Your task to perform on an android device: Open privacy settings Image 0: 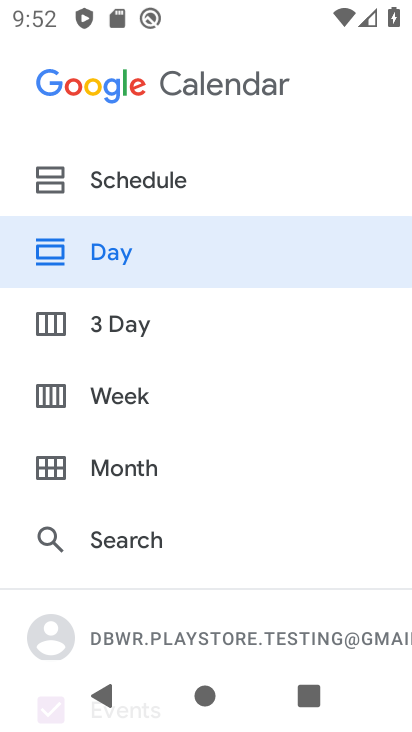
Step 0: press home button
Your task to perform on an android device: Open privacy settings Image 1: 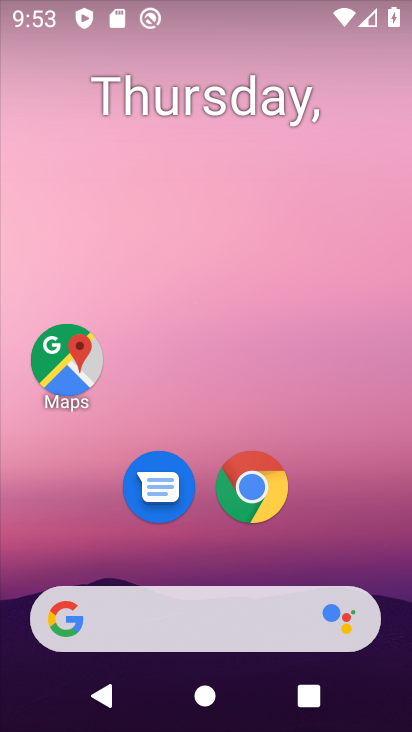
Step 1: drag from (319, 526) to (89, 210)
Your task to perform on an android device: Open privacy settings Image 2: 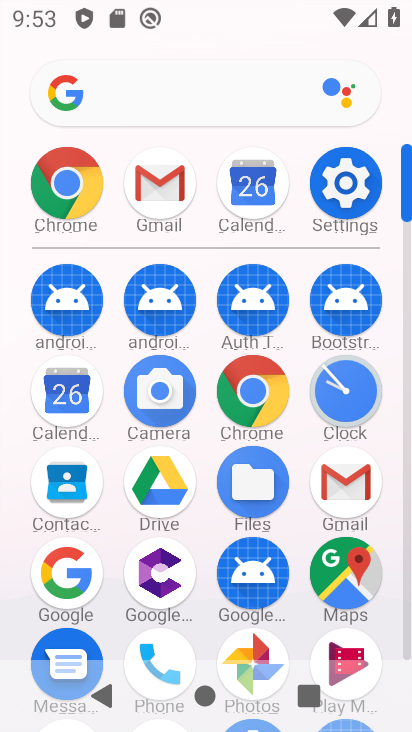
Step 2: click (351, 180)
Your task to perform on an android device: Open privacy settings Image 3: 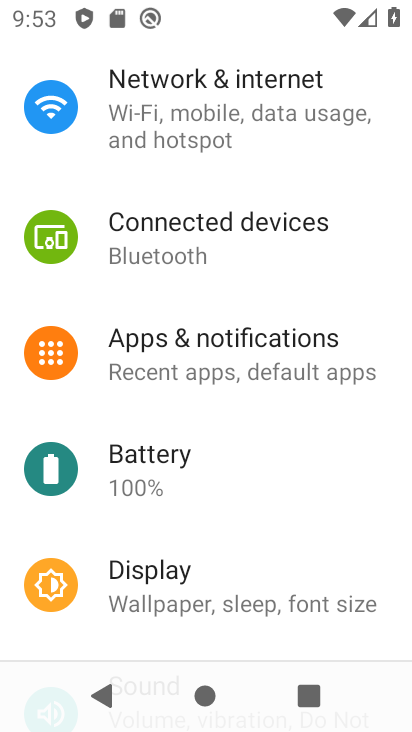
Step 3: drag from (238, 566) to (175, 240)
Your task to perform on an android device: Open privacy settings Image 4: 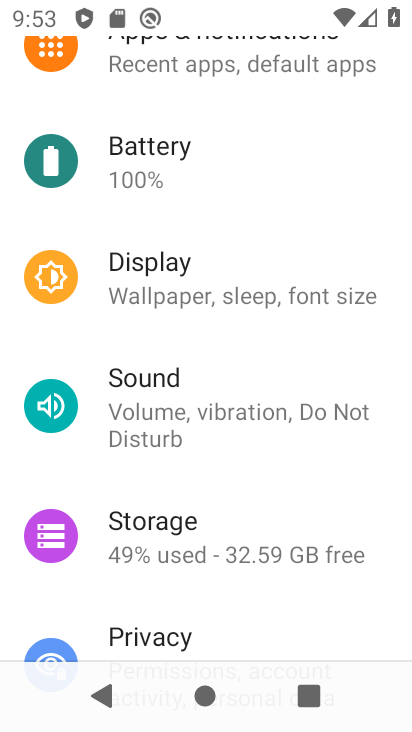
Step 4: click (142, 642)
Your task to perform on an android device: Open privacy settings Image 5: 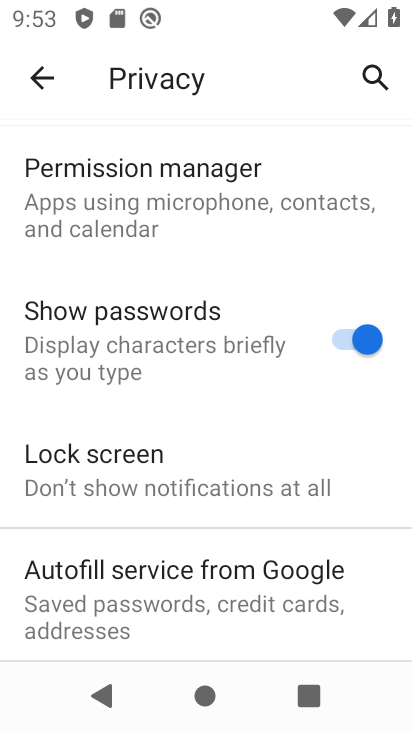
Step 5: drag from (142, 642) to (158, 309)
Your task to perform on an android device: Open privacy settings Image 6: 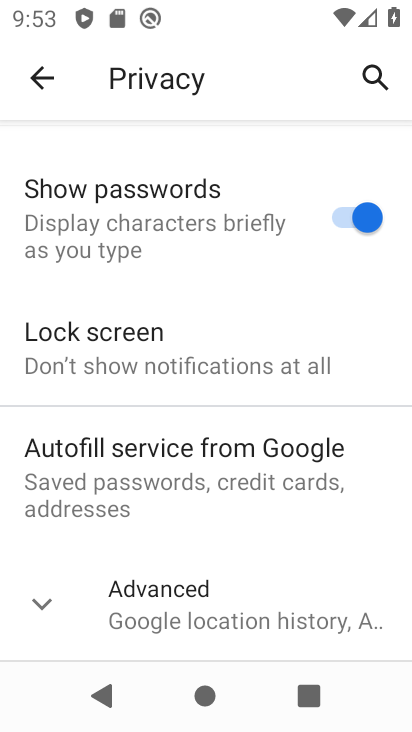
Step 6: click (138, 616)
Your task to perform on an android device: Open privacy settings Image 7: 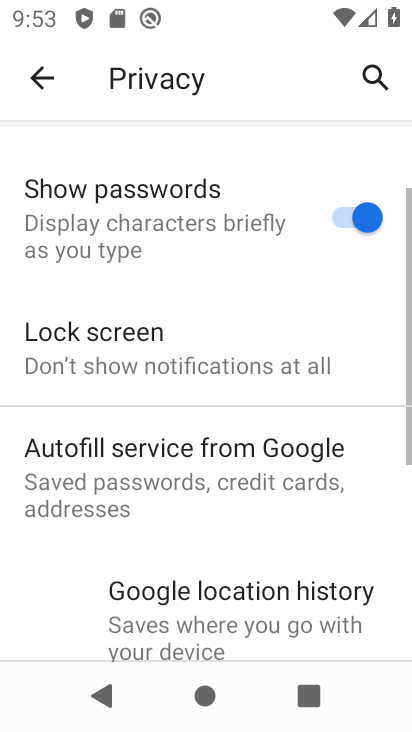
Step 7: task complete